Your task to perform on an android device: turn smart compose on in the gmail app Image 0: 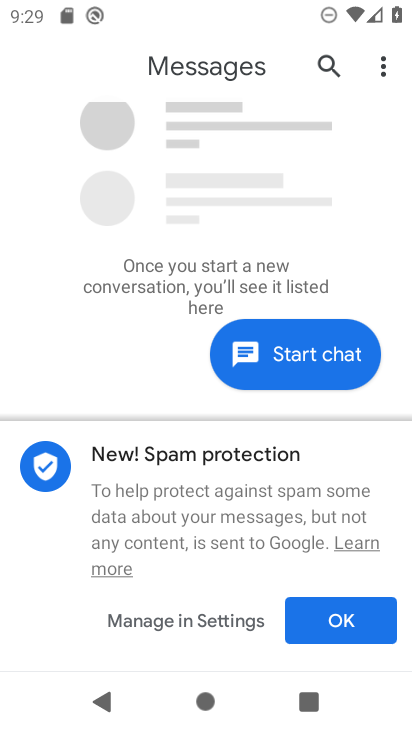
Step 0: press home button
Your task to perform on an android device: turn smart compose on in the gmail app Image 1: 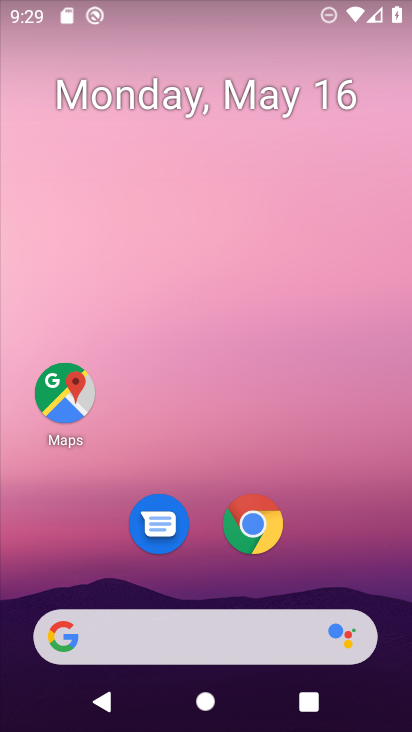
Step 1: drag from (332, 501) to (307, 45)
Your task to perform on an android device: turn smart compose on in the gmail app Image 2: 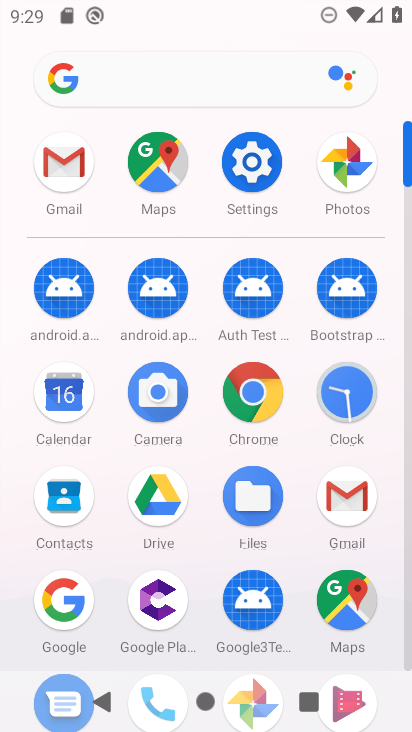
Step 2: click (72, 168)
Your task to perform on an android device: turn smart compose on in the gmail app Image 3: 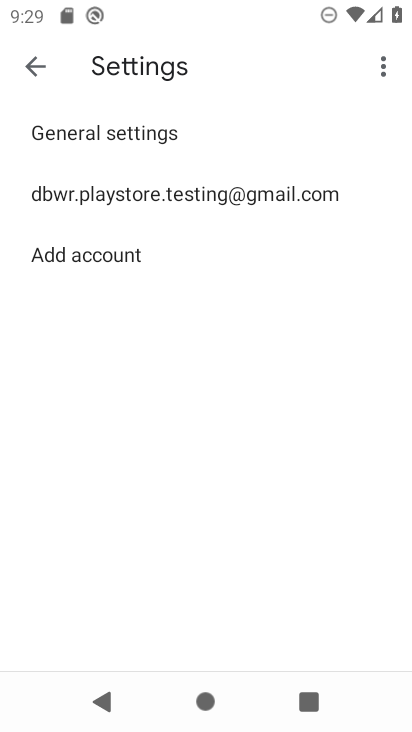
Step 3: click (98, 182)
Your task to perform on an android device: turn smart compose on in the gmail app Image 4: 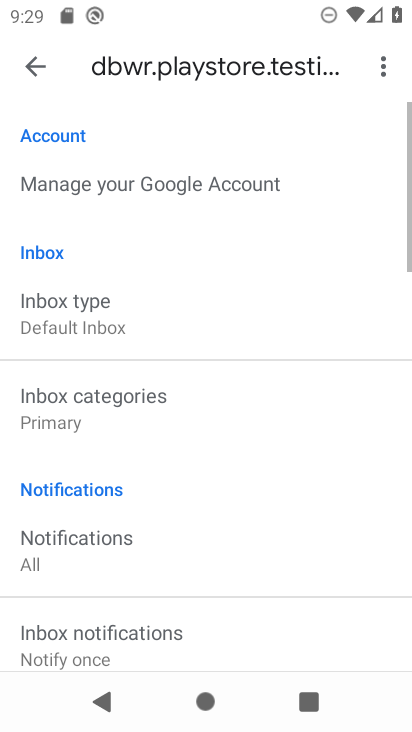
Step 4: task complete